Your task to perform on an android device: Turn off the flashlight Image 0: 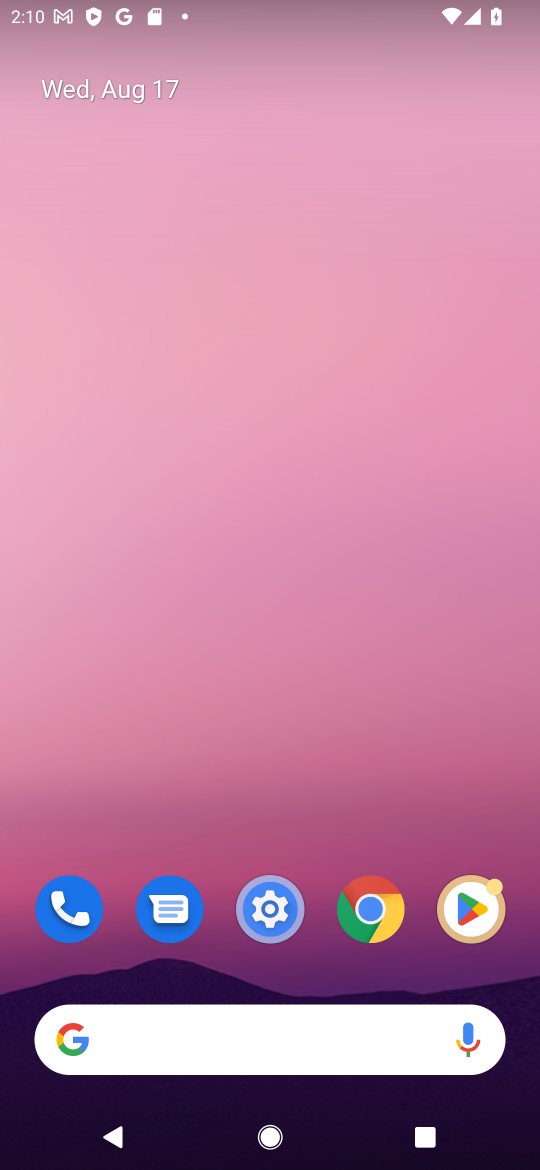
Step 0: click (171, 149)
Your task to perform on an android device: Turn off the flashlight Image 1: 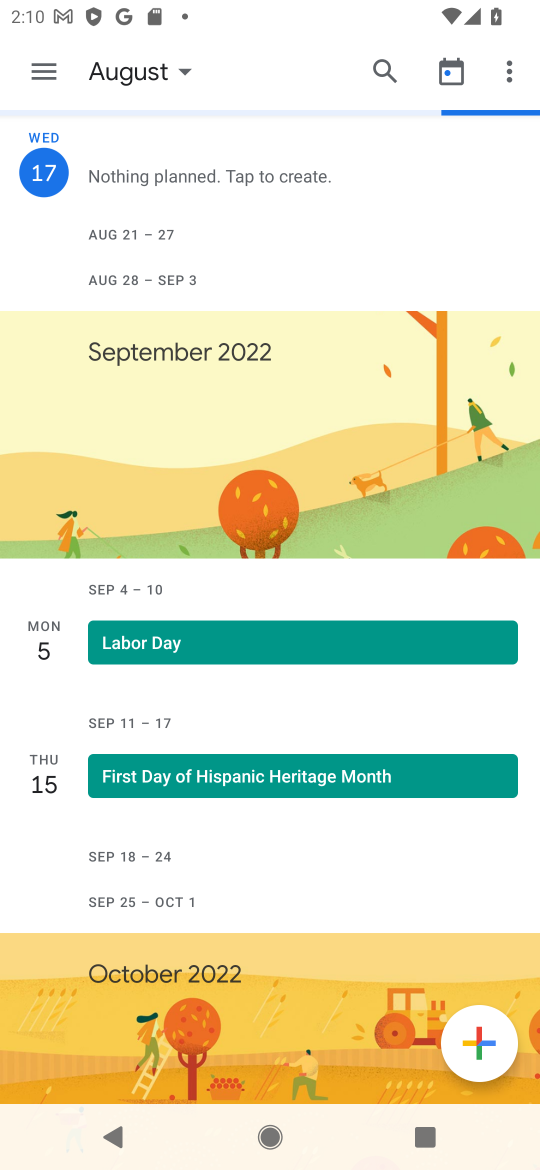
Step 1: task complete